Your task to perform on an android device: set default search engine in the chrome app Image 0: 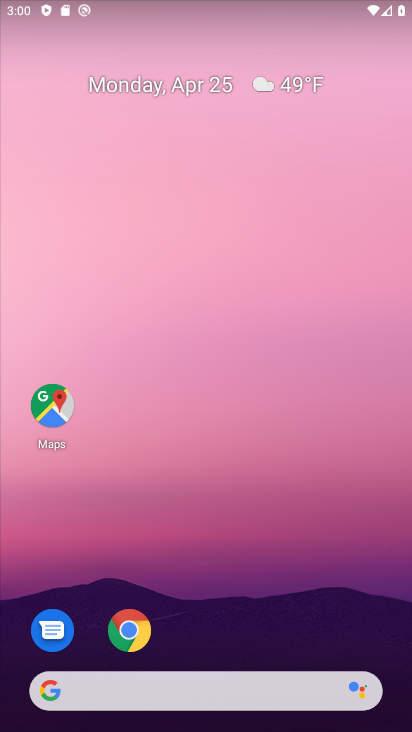
Step 0: click (132, 642)
Your task to perform on an android device: set default search engine in the chrome app Image 1: 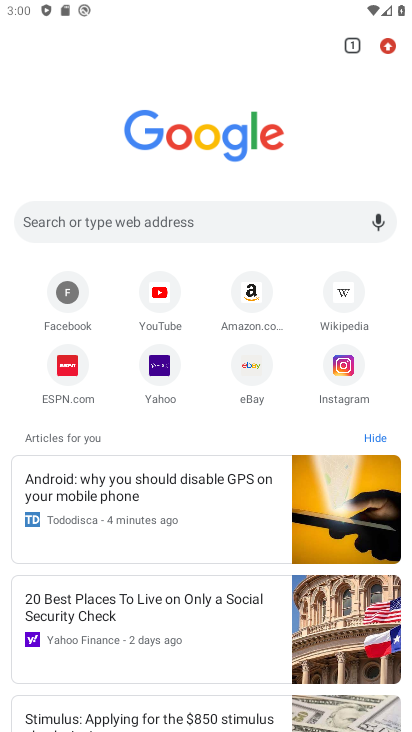
Step 1: click (386, 39)
Your task to perform on an android device: set default search engine in the chrome app Image 2: 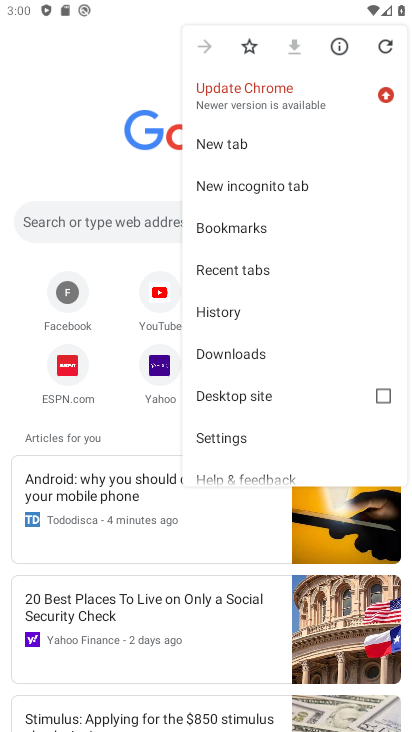
Step 2: click (250, 430)
Your task to perform on an android device: set default search engine in the chrome app Image 3: 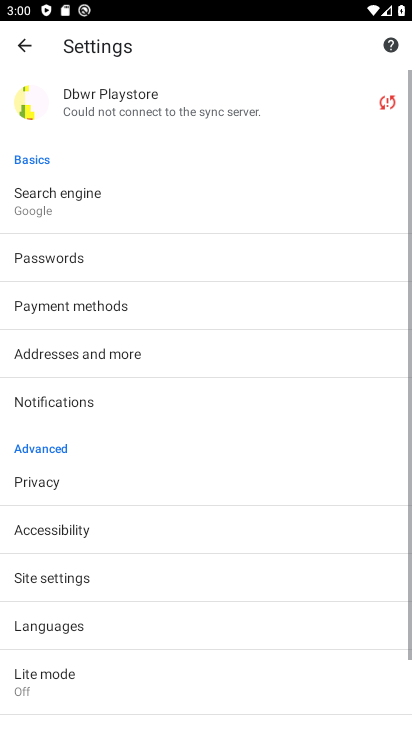
Step 3: click (126, 202)
Your task to perform on an android device: set default search engine in the chrome app Image 4: 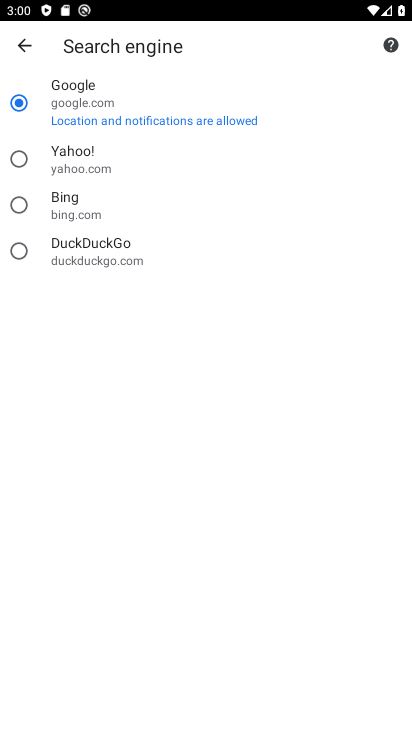
Step 4: task complete